Your task to perform on an android device: check data usage Image 0: 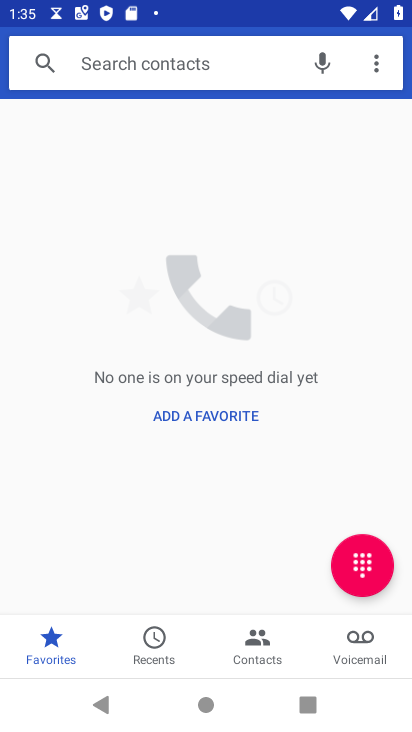
Step 0: press home button
Your task to perform on an android device: check data usage Image 1: 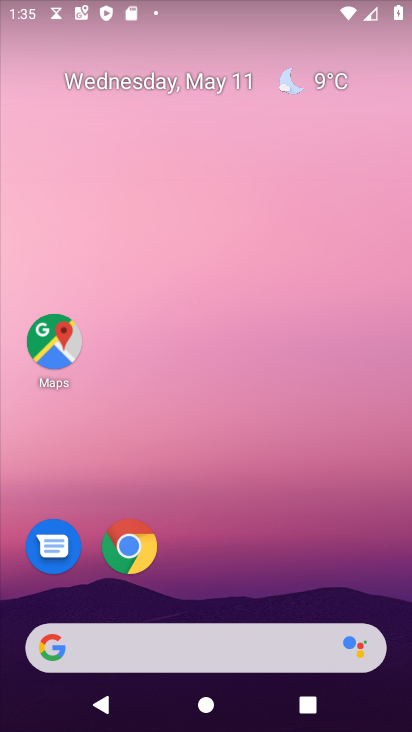
Step 1: drag from (203, 594) to (242, 55)
Your task to perform on an android device: check data usage Image 2: 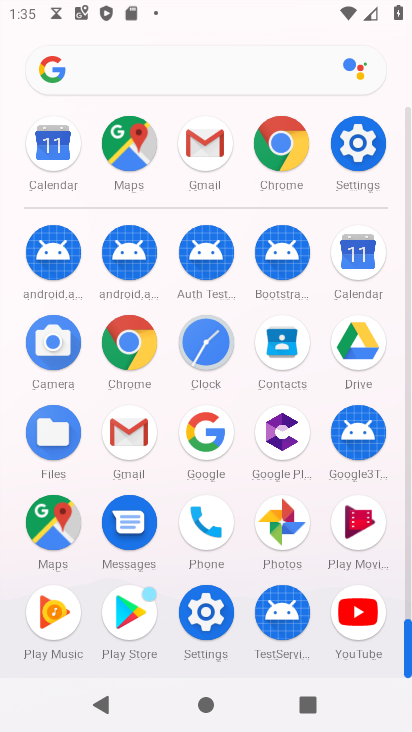
Step 2: click (358, 160)
Your task to perform on an android device: check data usage Image 3: 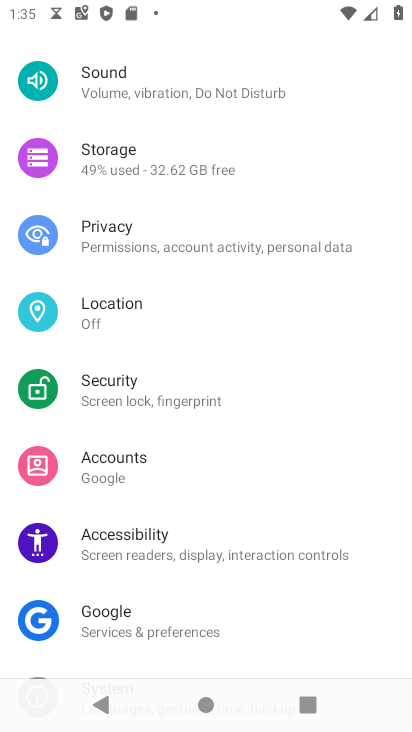
Step 3: drag from (191, 207) to (241, 608)
Your task to perform on an android device: check data usage Image 4: 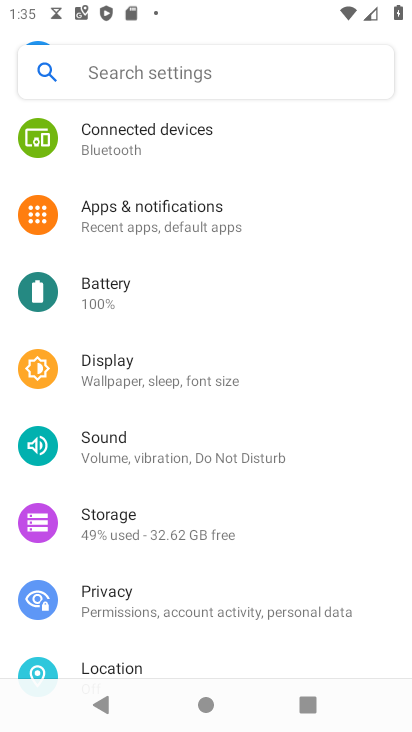
Step 4: drag from (168, 207) to (251, 597)
Your task to perform on an android device: check data usage Image 5: 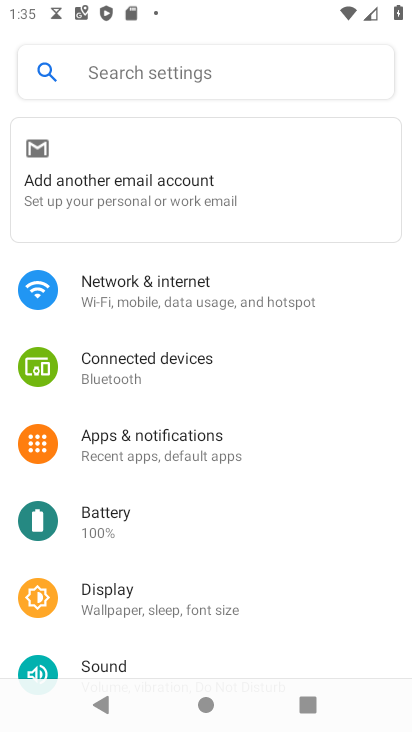
Step 5: click (157, 289)
Your task to perform on an android device: check data usage Image 6: 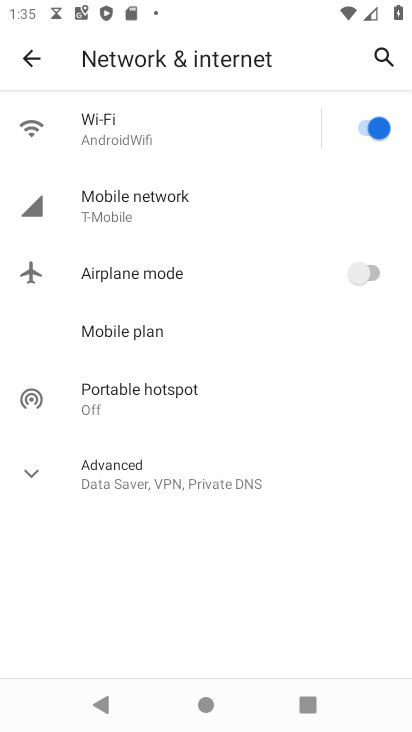
Step 6: click (152, 223)
Your task to perform on an android device: check data usage Image 7: 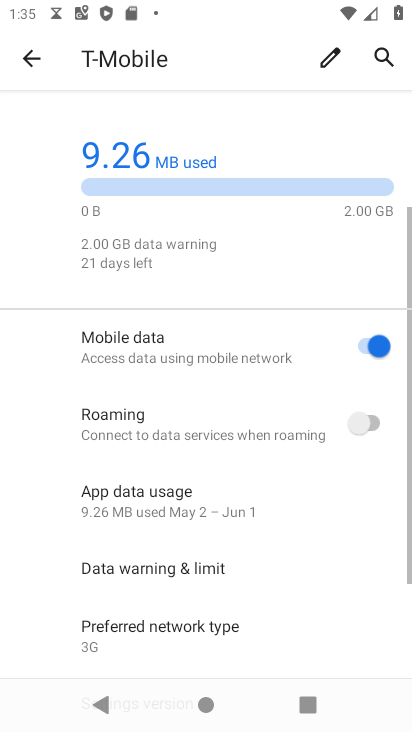
Step 7: drag from (260, 588) to (246, 356)
Your task to perform on an android device: check data usage Image 8: 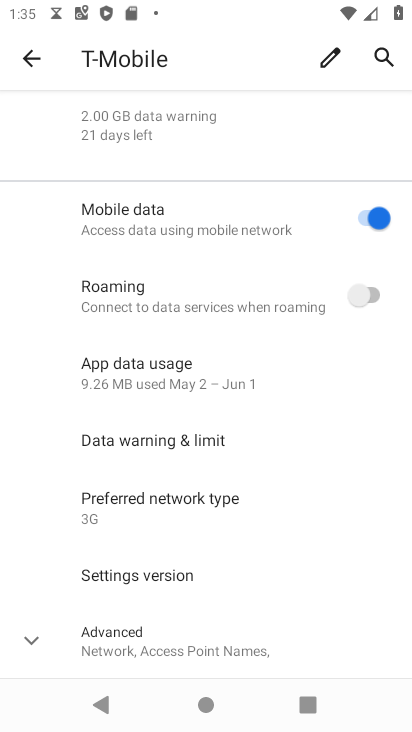
Step 8: click (219, 367)
Your task to perform on an android device: check data usage Image 9: 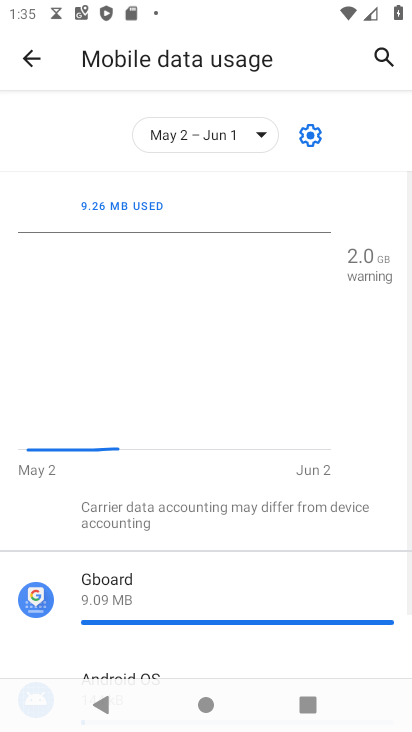
Step 9: task complete